Your task to perform on an android device: Open Chrome and go to settings Image 0: 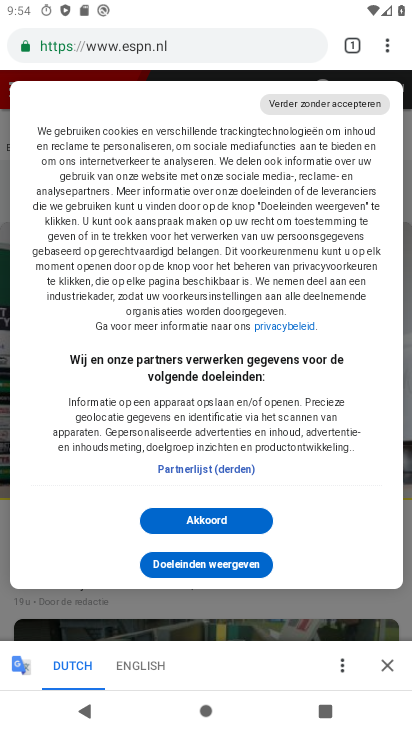
Step 0: press home button
Your task to perform on an android device: Open Chrome and go to settings Image 1: 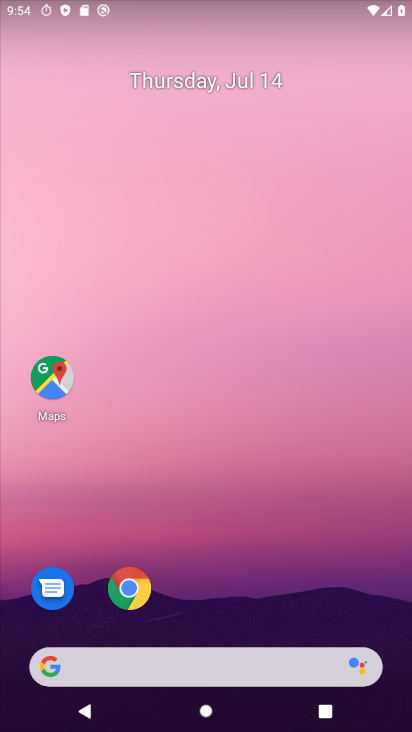
Step 1: click (130, 583)
Your task to perform on an android device: Open Chrome and go to settings Image 2: 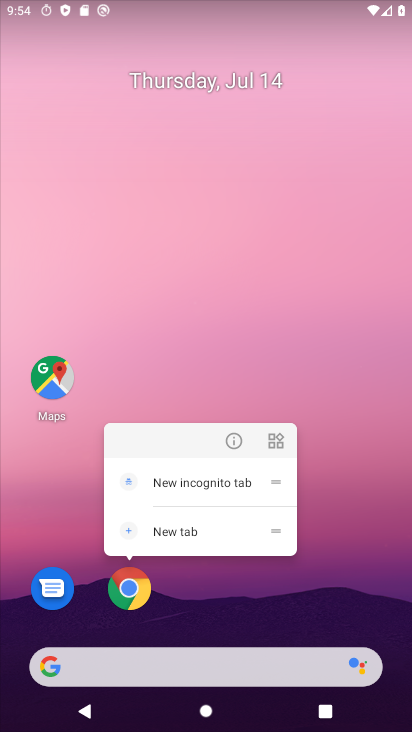
Step 2: click (131, 588)
Your task to perform on an android device: Open Chrome and go to settings Image 3: 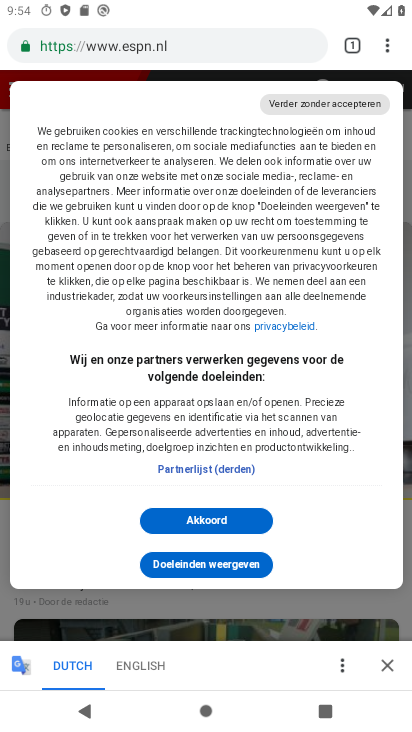
Step 3: click (387, 52)
Your task to perform on an android device: Open Chrome and go to settings Image 4: 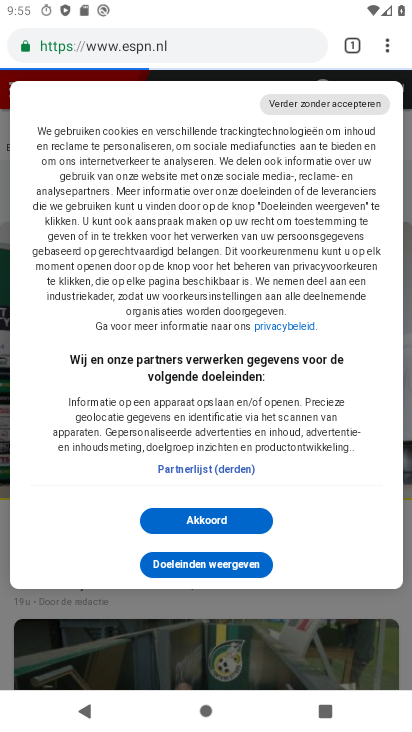
Step 4: click (387, 47)
Your task to perform on an android device: Open Chrome and go to settings Image 5: 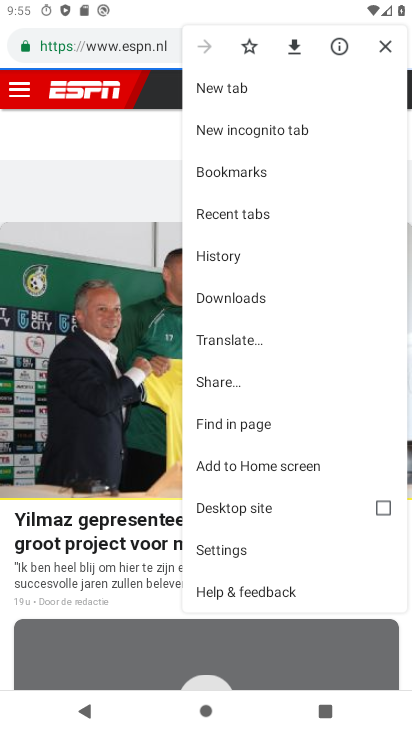
Step 5: click (216, 545)
Your task to perform on an android device: Open Chrome and go to settings Image 6: 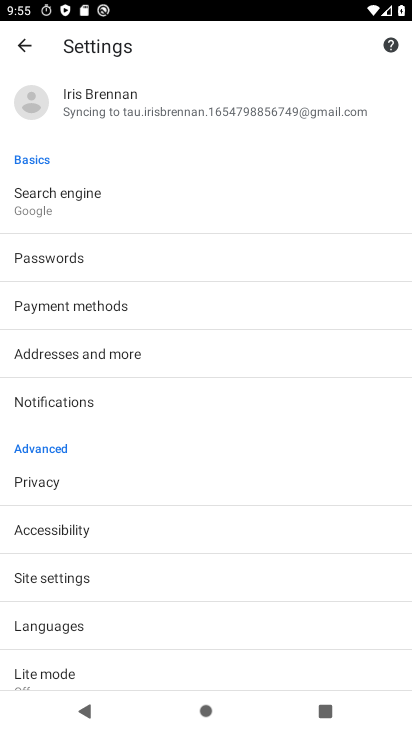
Step 6: task complete